Your task to perform on an android device: Set the phone to "Do not disturb". Image 0: 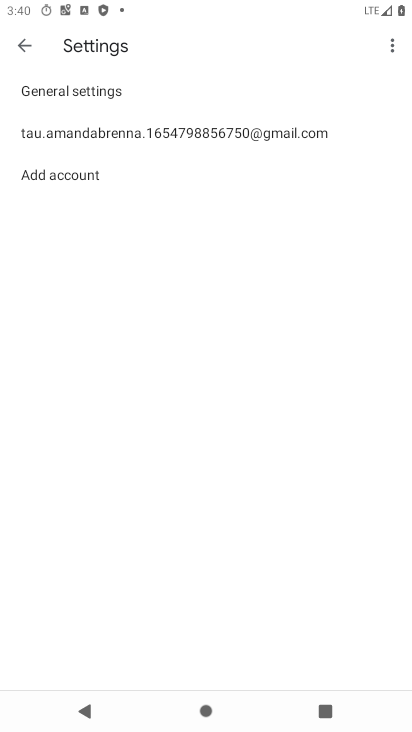
Step 0: press home button
Your task to perform on an android device: Set the phone to "Do not disturb". Image 1: 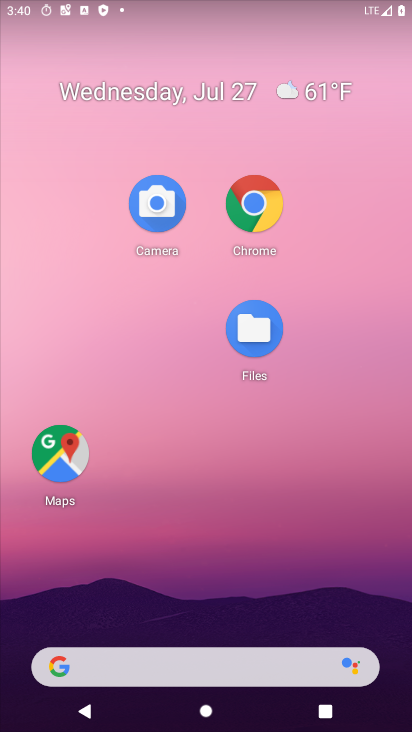
Step 1: drag from (205, 620) to (202, 198)
Your task to perform on an android device: Set the phone to "Do not disturb". Image 2: 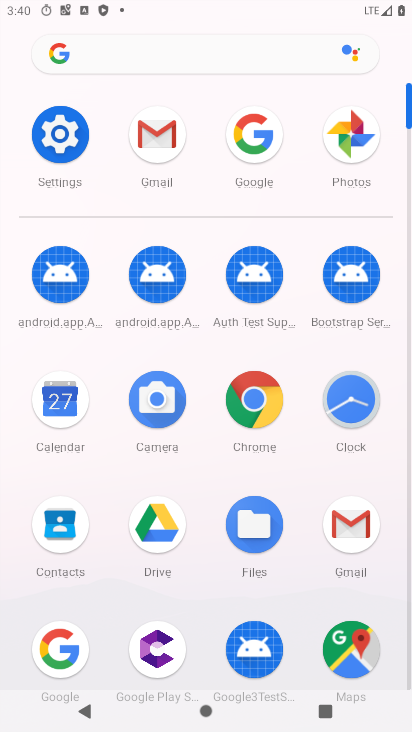
Step 2: click (68, 142)
Your task to perform on an android device: Set the phone to "Do not disturb". Image 3: 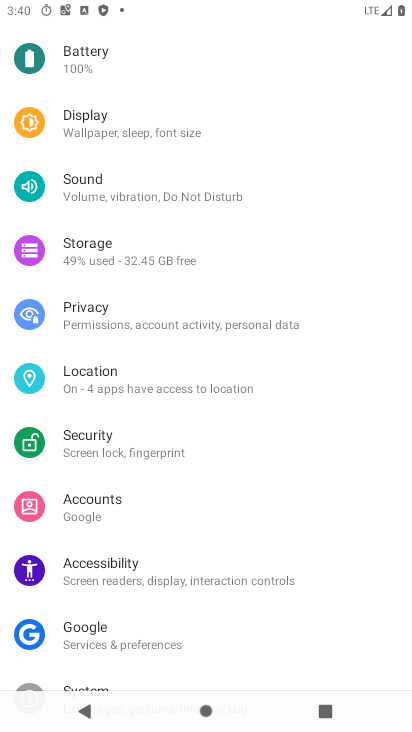
Step 3: click (128, 200)
Your task to perform on an android device: Set the phone to "Do not disturb". Image 4: 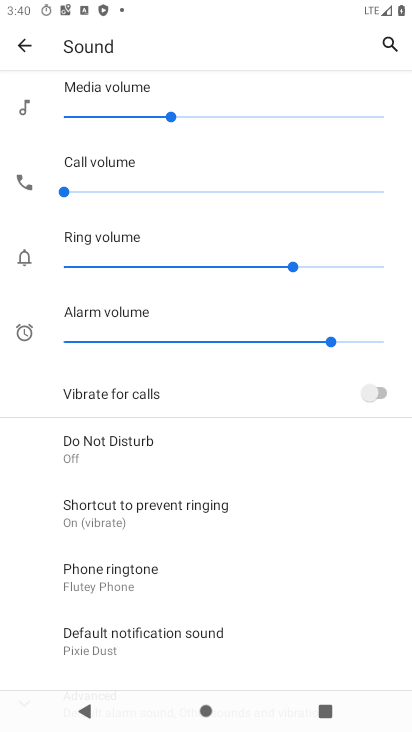
Step 4: click (144, 425)
Your task to perform on an android device: Set the phone to "Do not disturb". Image 5: 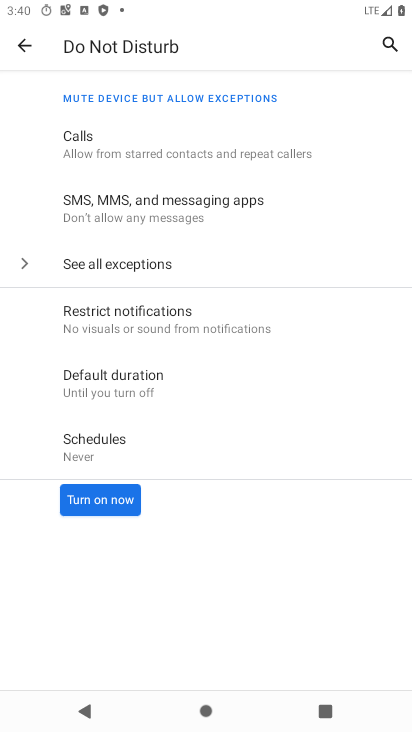
Step 5: click (121, 496)
Your task to perform on an android device: Set the phone to "Do not disturb". Image 6: 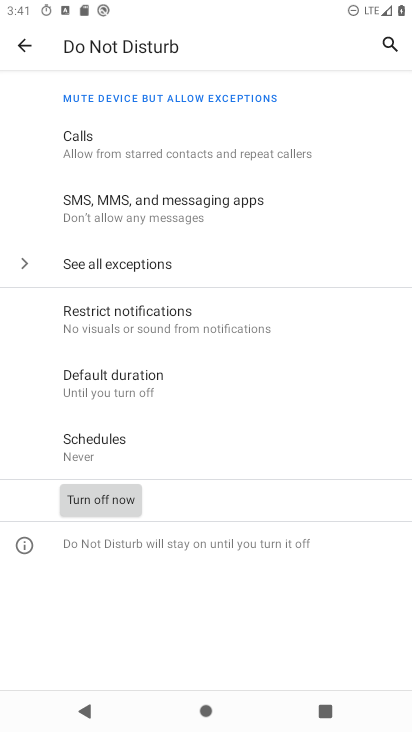
Step 6: task complete